Your task to perform on an android device: Open notification settings Image 0: 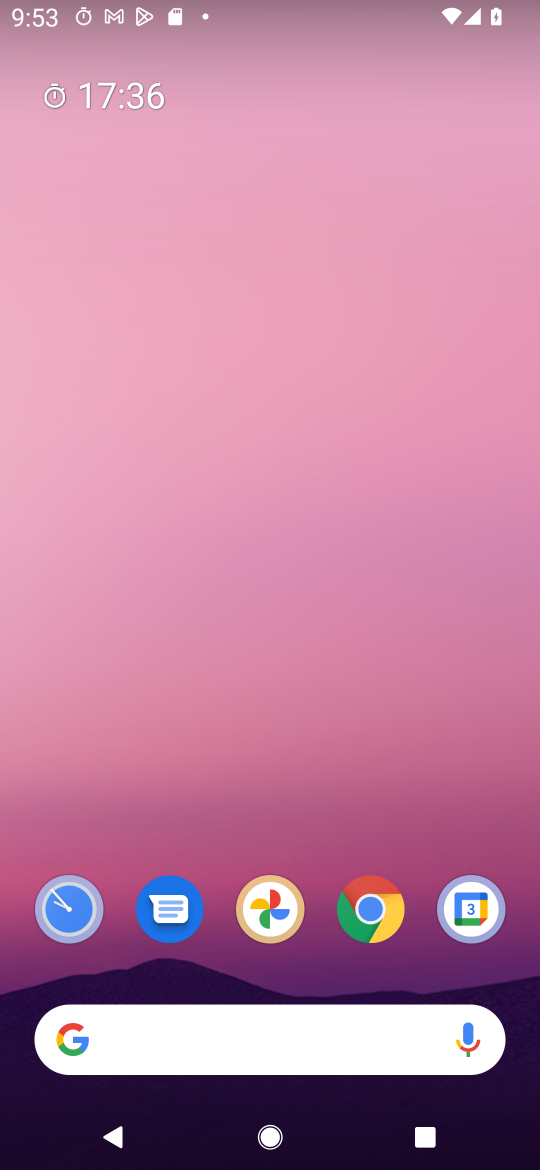
Step 0: drag from (409, 767) to (413, 127)
Your task to perform on an android device: Open notification settings Image 1: 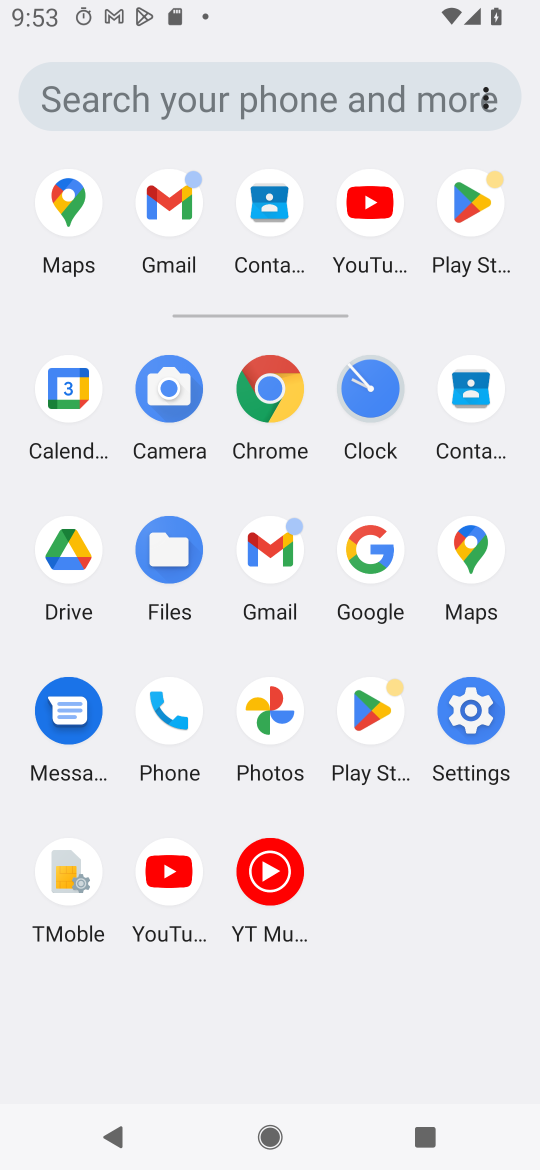
Step 1: click (473, 713)
Your task to perform on an android device: Open notification settings Image 2: 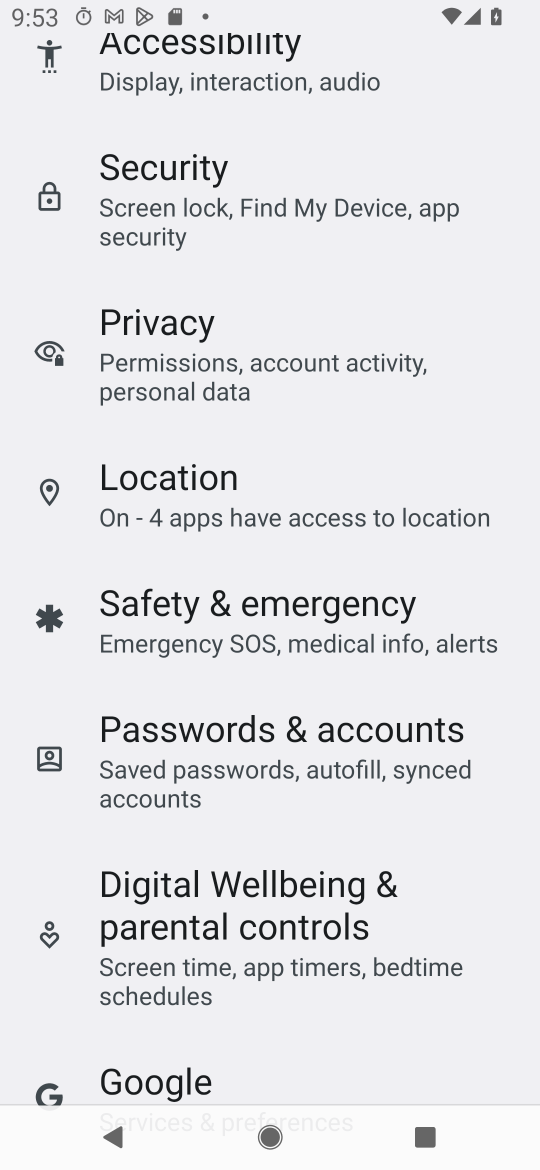
Step 2: drag from (498, 328) to (509, 545)
Your task to perform on an android device: Open notification settings Image 3: 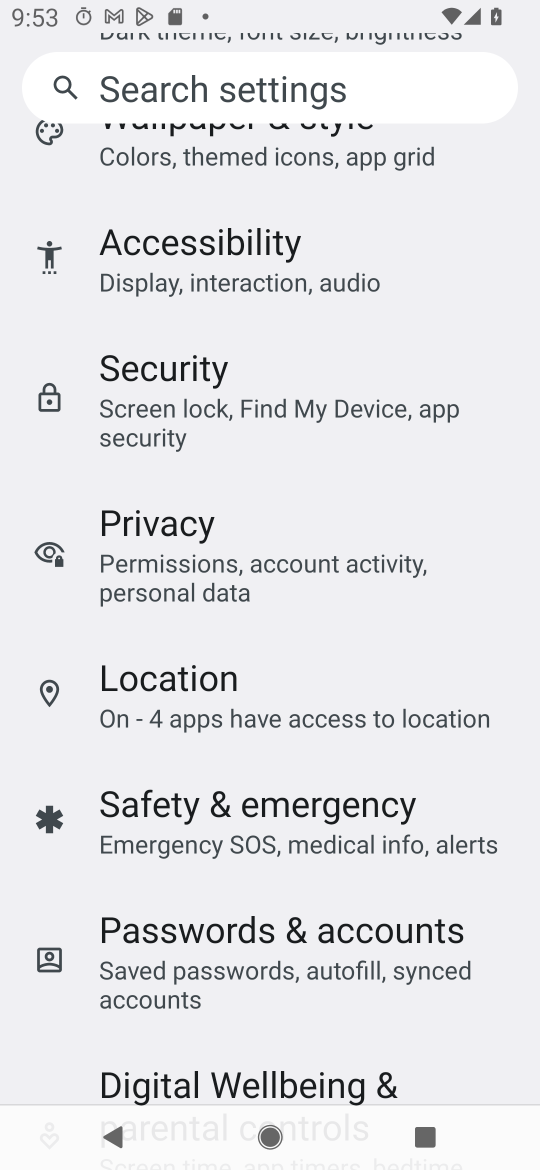
Step 3: drag from (483, 325) to (483, 532)
Your task to perform on an android device: Open notification settings Image 4: 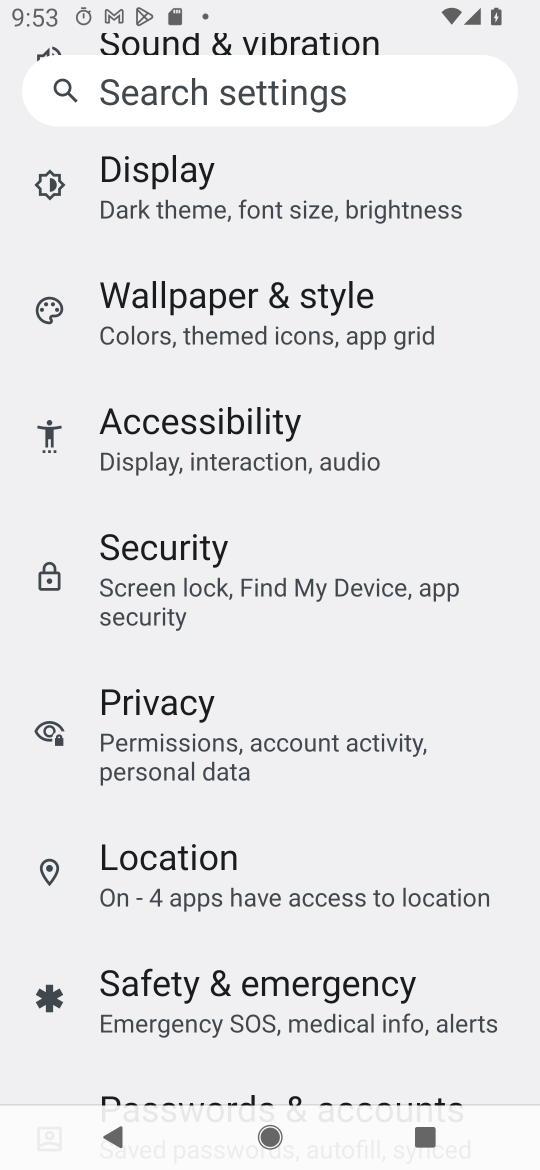
Step 4: drag from (483, 297) to (484, 512)
Your task to perform on an android device: Open notification settings Image 5: 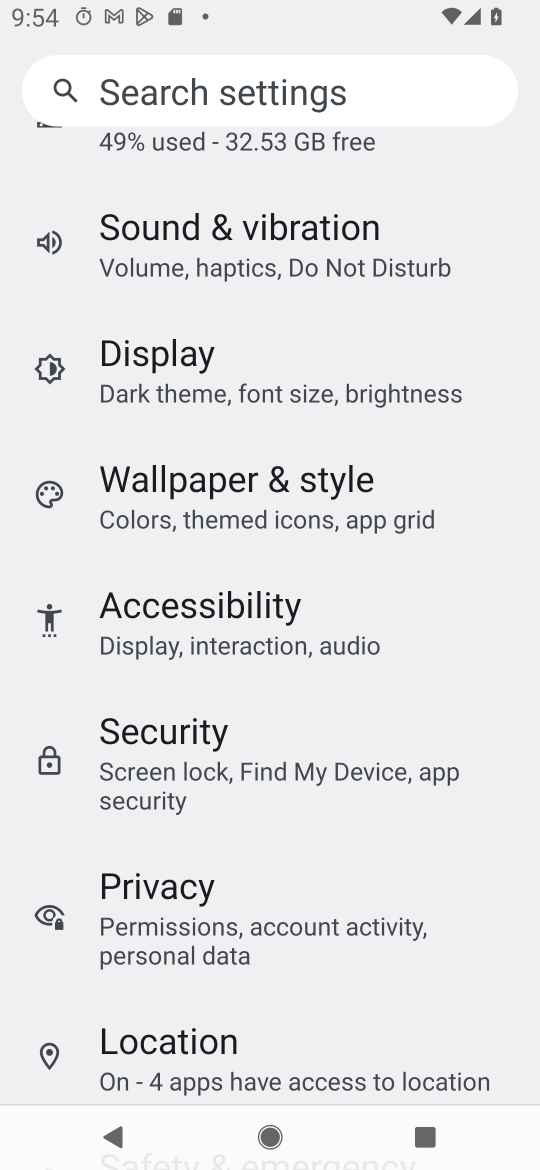
Step 5: drag from (481, 316) to (497, 488)
Your task to perform on an android device: Open notification settings Image 6: 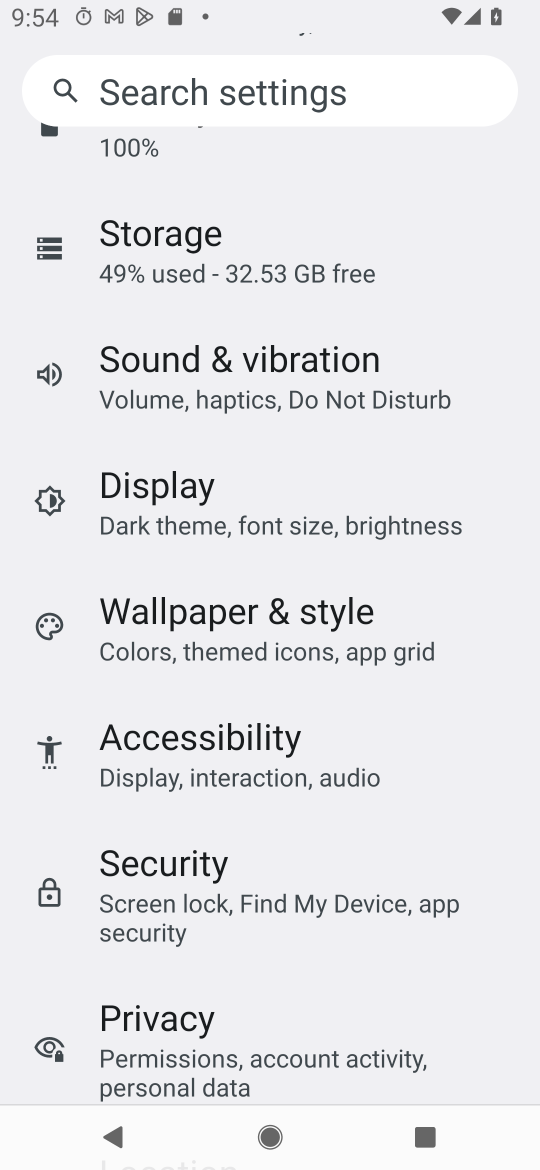
Step 6: drag from (475, 257) to (490, 541)
Your task to perform on an android device: Open notification settings Image 7: 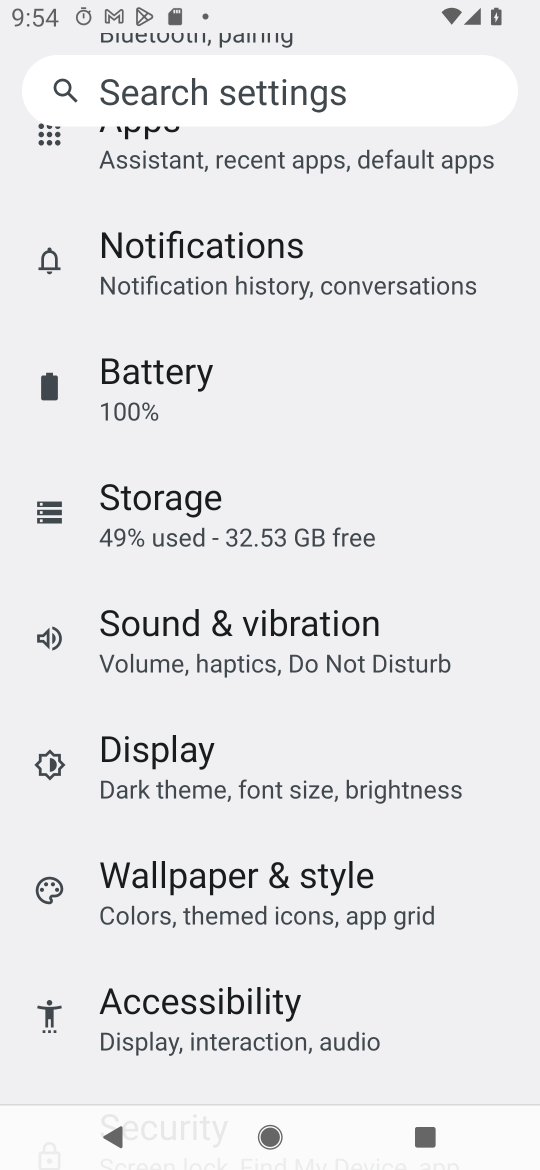
Step 7: click (354, 271)
Your task to perform on an android device: Open notification settings Image 8: 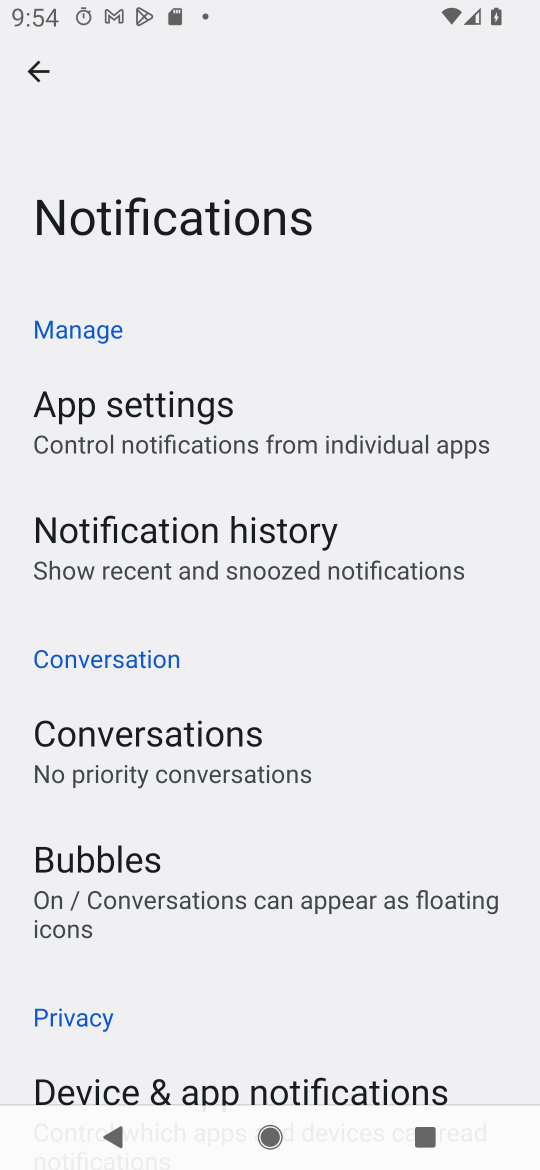
Step 8: task complete